Your task to perform on an android device: Go to display settings Image 0: 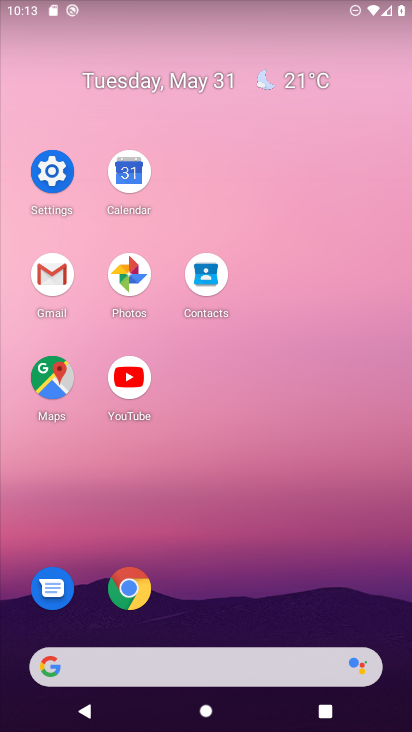
Step 0: click (53, 177)
Your task to perform on an android device: Go to display settings Image 1: 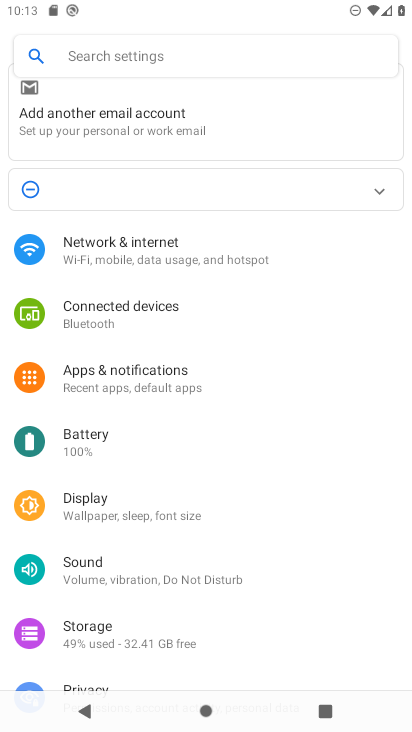
Step 1: click (147, 513)
Your task to perform on an android device: Go to display settings Image 2: 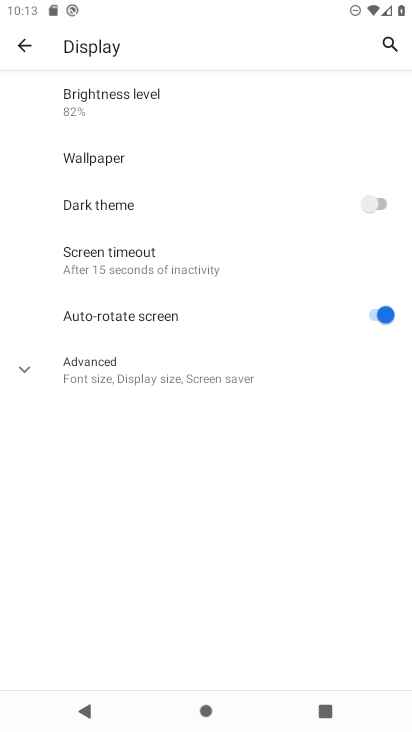
Step 2: task complete